Your task to perform on an android device: Go to Wikipedia Image 0: 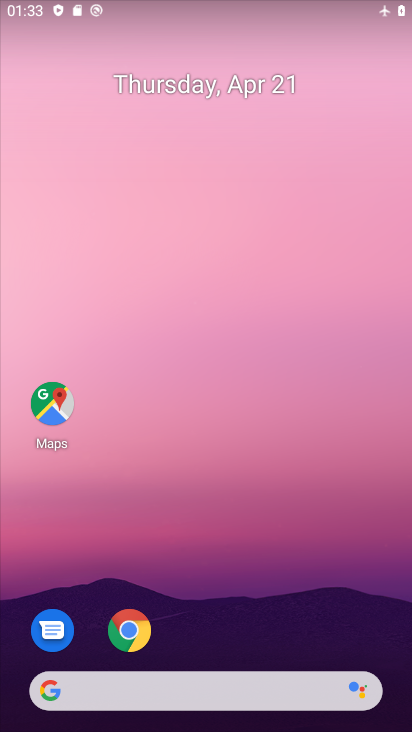
Step 0: drag from (277, 628) to (206, 21)
Your task to perform on an android device: Go to Wikipedia Image 1: 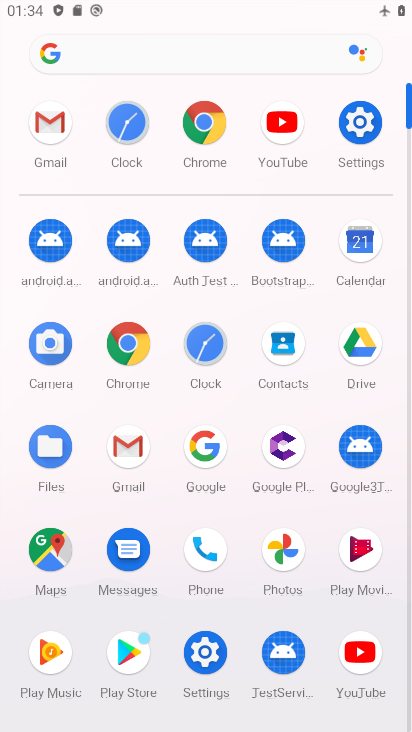
Step 1: click (221, 127)
Your task to perform on an android device: Go to Wikipedia Image 2: 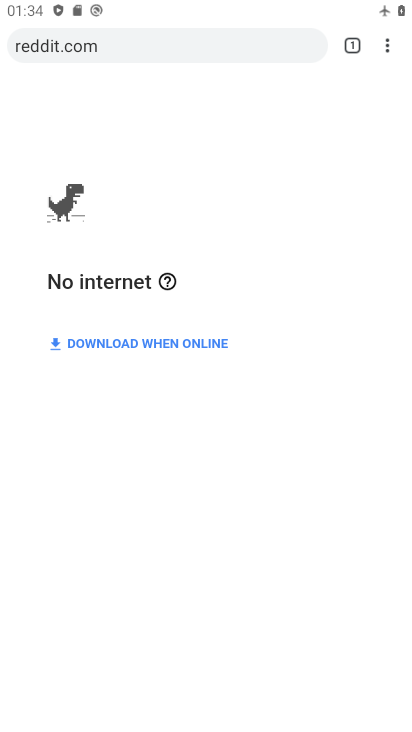
Step 2: task complete